Your task to perform on an android device: open chrome privacy settings Image 0: 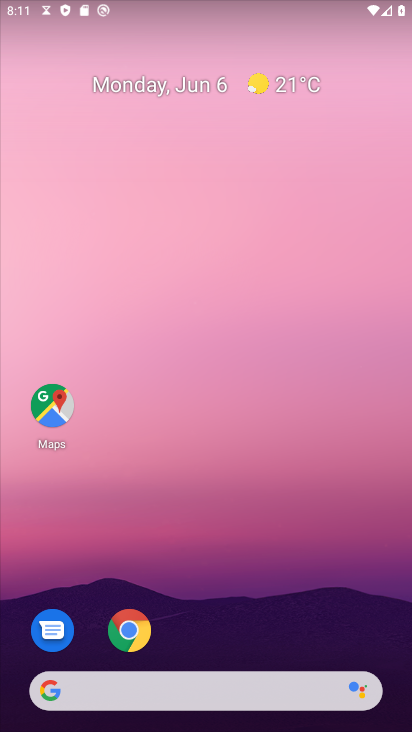
Step 0: click (130, 630)
Your task to perform on an android device: open chrome privacy settings Image 1: 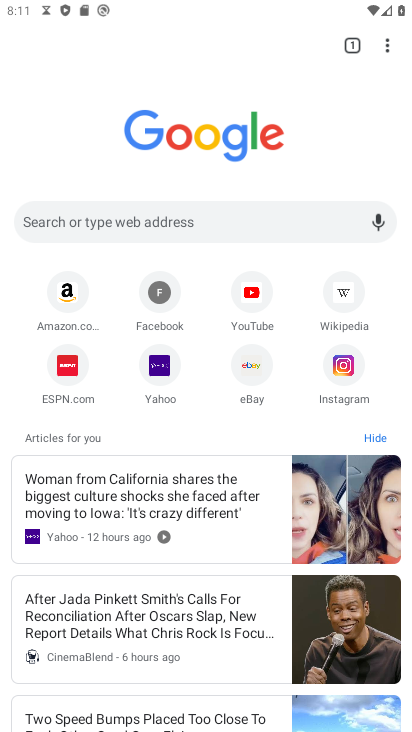
Step 1: click (388, 47)
Your task to perform on an android device: open chrome privacy settings Image 2: 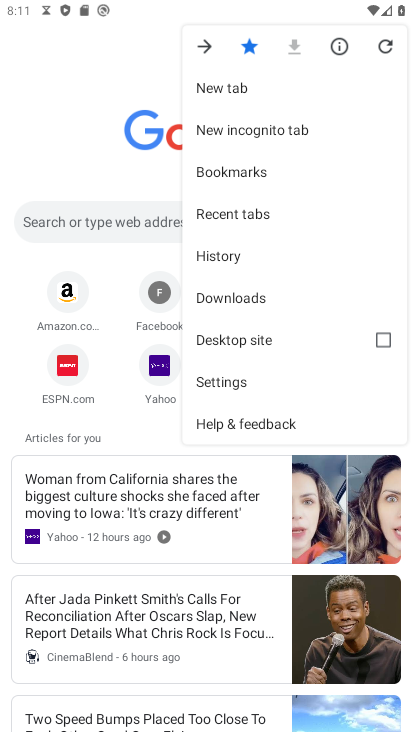
Step 2: click (223, 380)
Your task to perform on an android device: open chrome privacy settings Image 3: 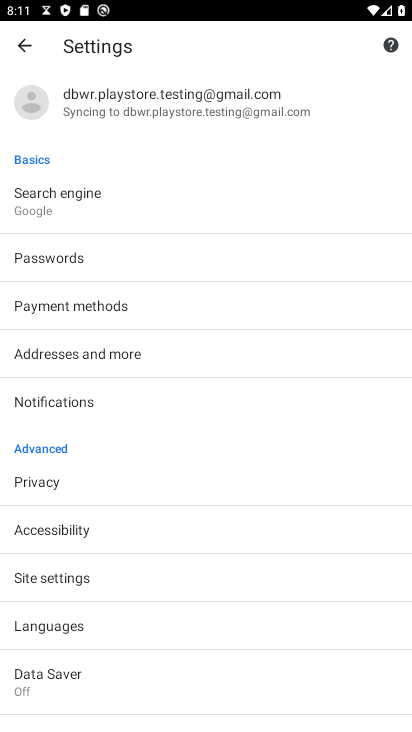
Step 3: click (47, 487)
Your task to perform on an android device: open chrome privacy settings Image 4: 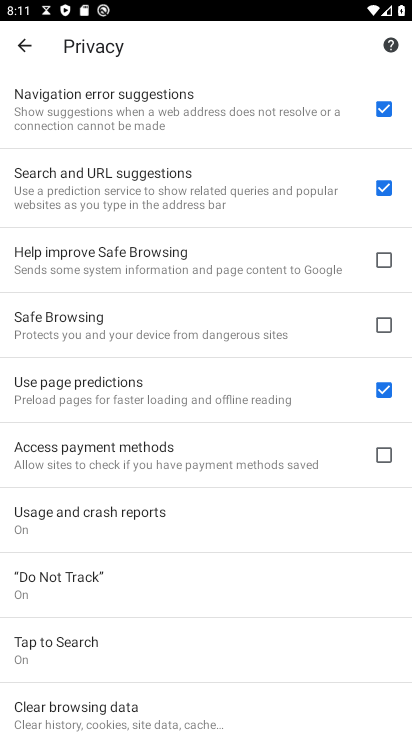
Step 4: task complete